Your task to perform on an android device: Go to calendar. Show me events next week Image 0: 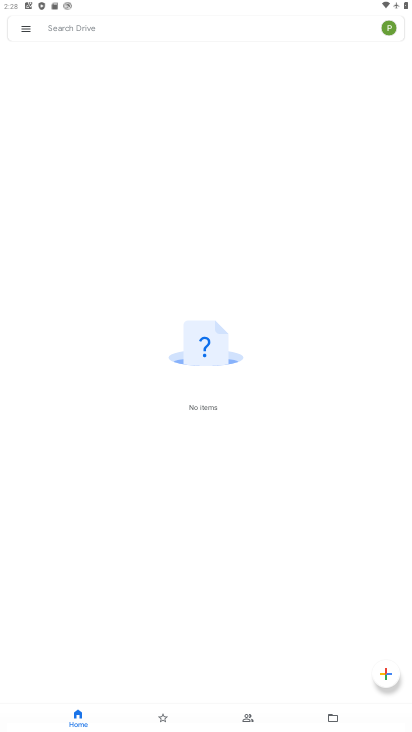
Step 0: press home button
Your task to perform on an android device: Go to calendar. Show me events next week Image 1: 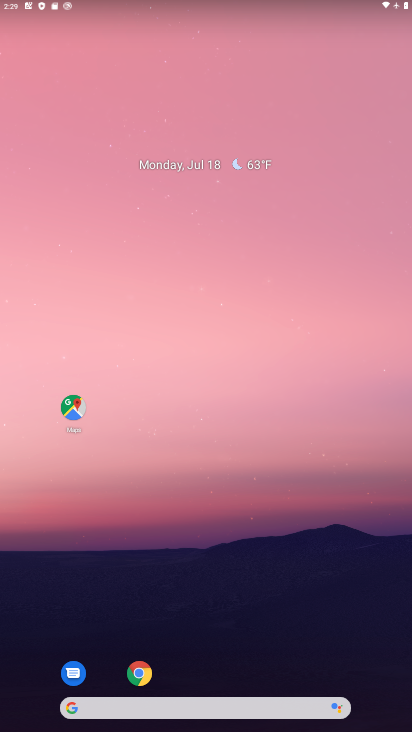
Step 1: drag from (214, 653) to (205, 175)
Your task to perform on an android device: Go to calendar. Show me events next week Image 2: 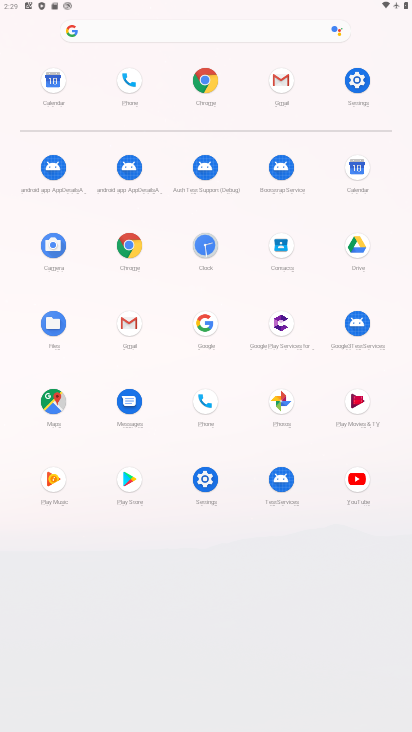
Step 2: click (364, 162)
Your task to perform on an android device: Go to calendar. Show me events next week Image 3: 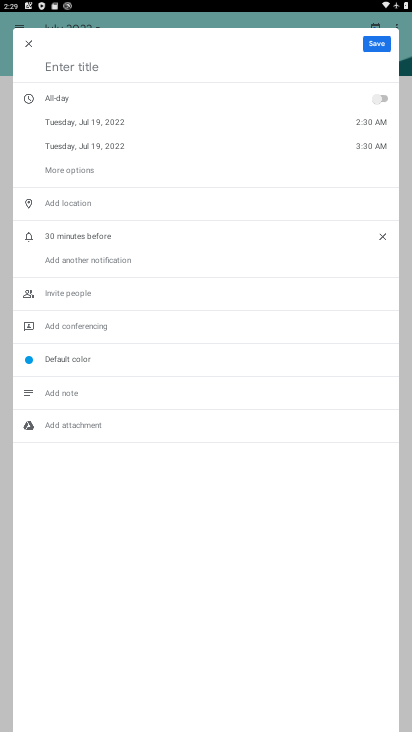
Step 3: click (25, 46)
Your task to perform on an android device: Go to calendar. Show me events next week Image 4: 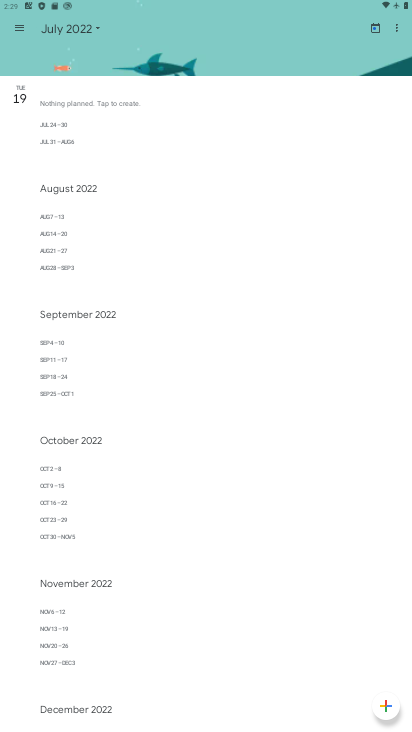
Step 4: task complete